Your task to perform on an android device: Search for pizza restaurants on Maps Image 0: 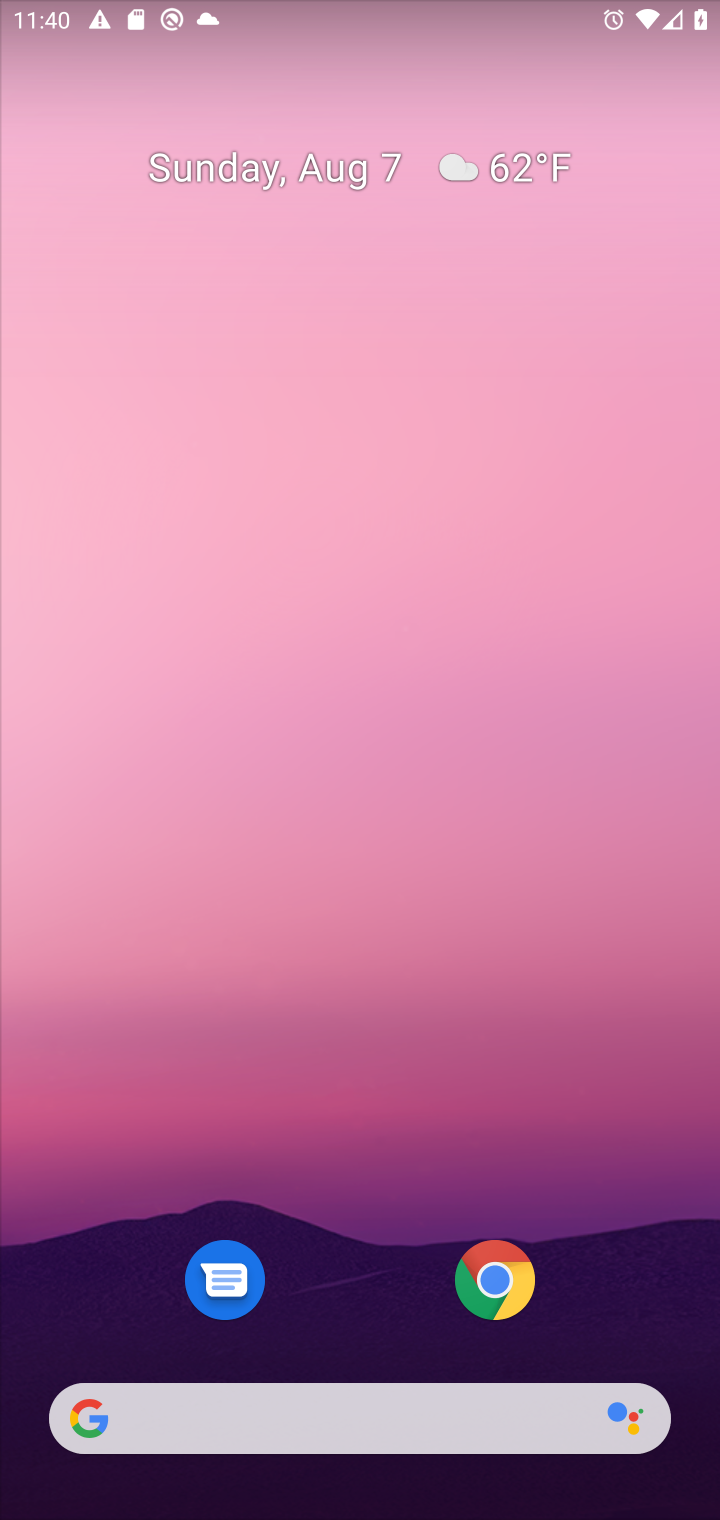
Step 0: press home button
Your task to perform on an android device: Search for pizza restaurants on Maps Image 1: 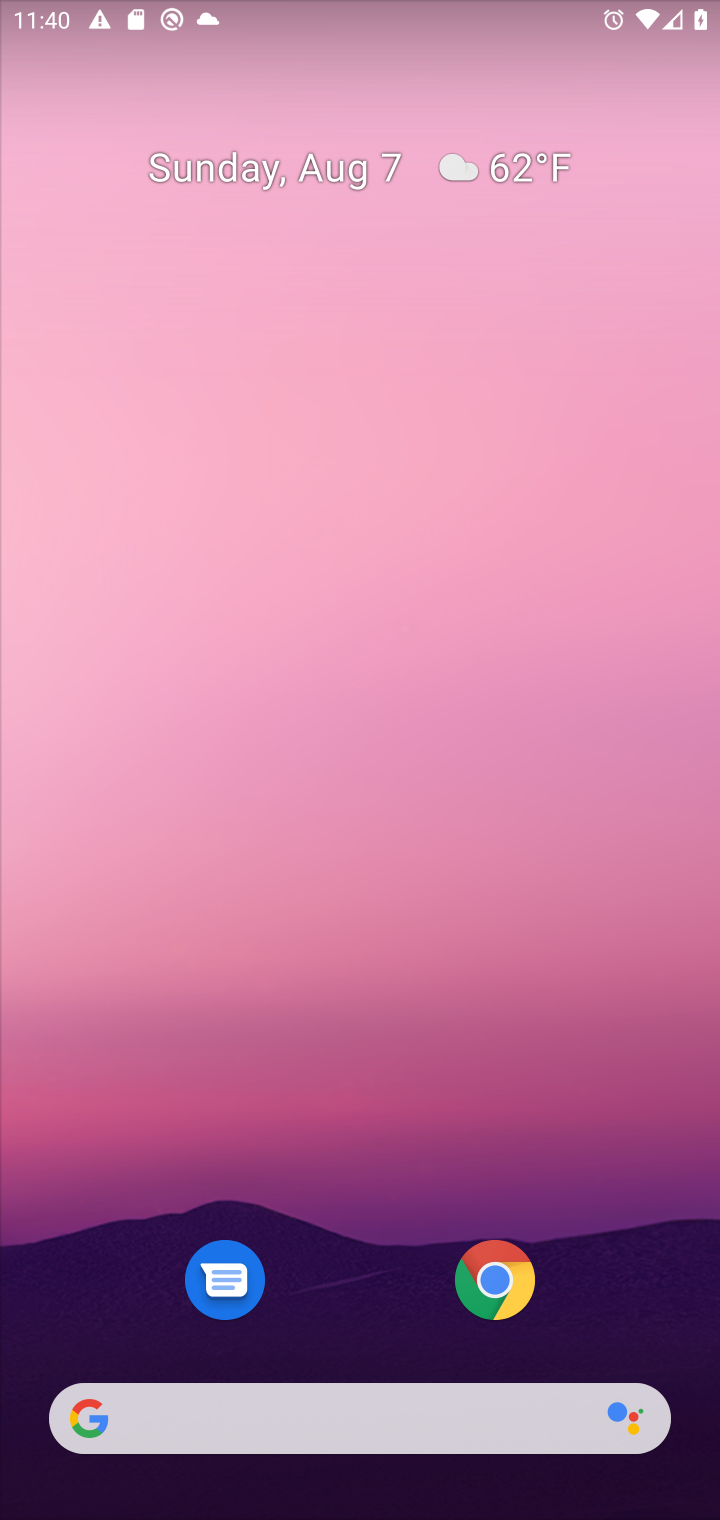
Step 1: press home button
Your task to perform on an android device: Search for pizza restaurants on Maps Image 2: 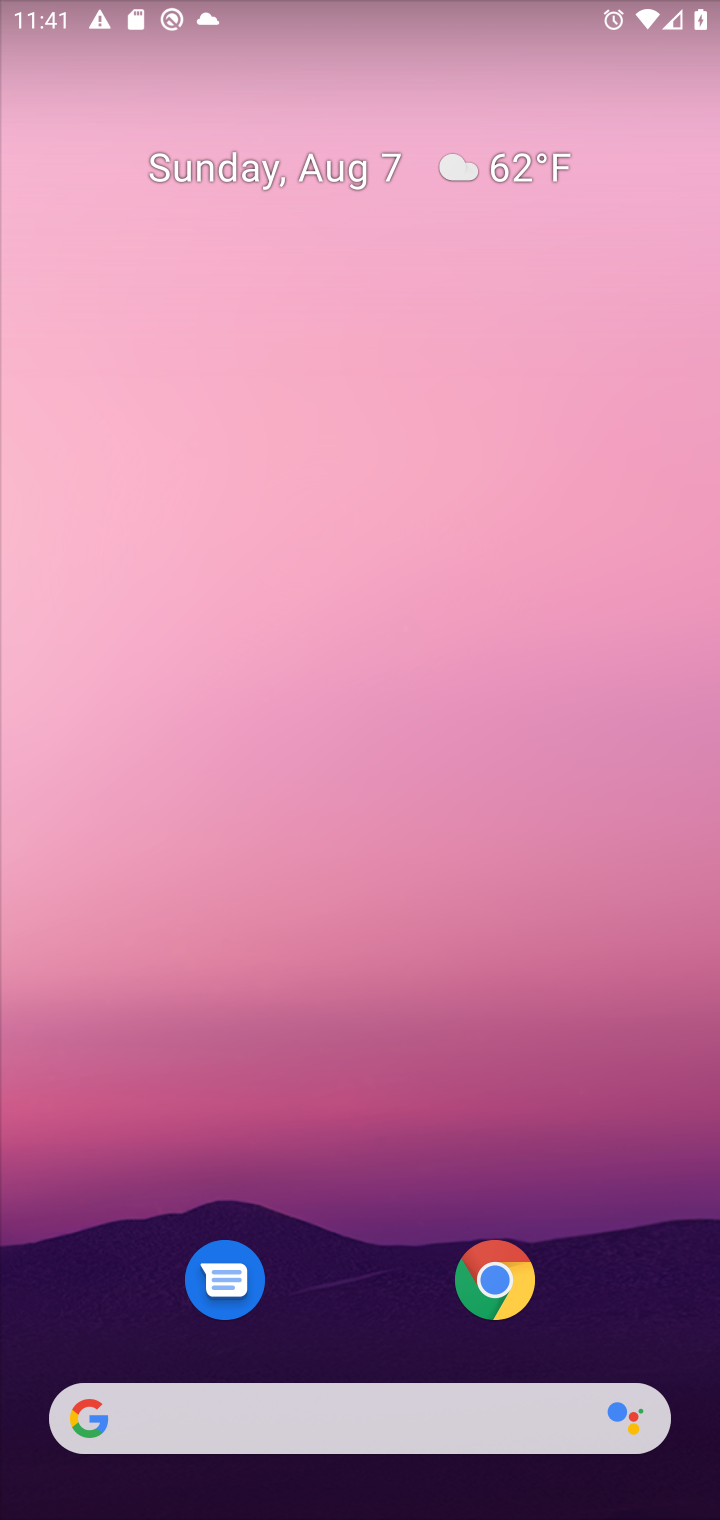
Step 2: drag from (359, 1237) to (359, 173)
Your task to perform on an android device: Search for pizza restaurants on Maps Image 3: 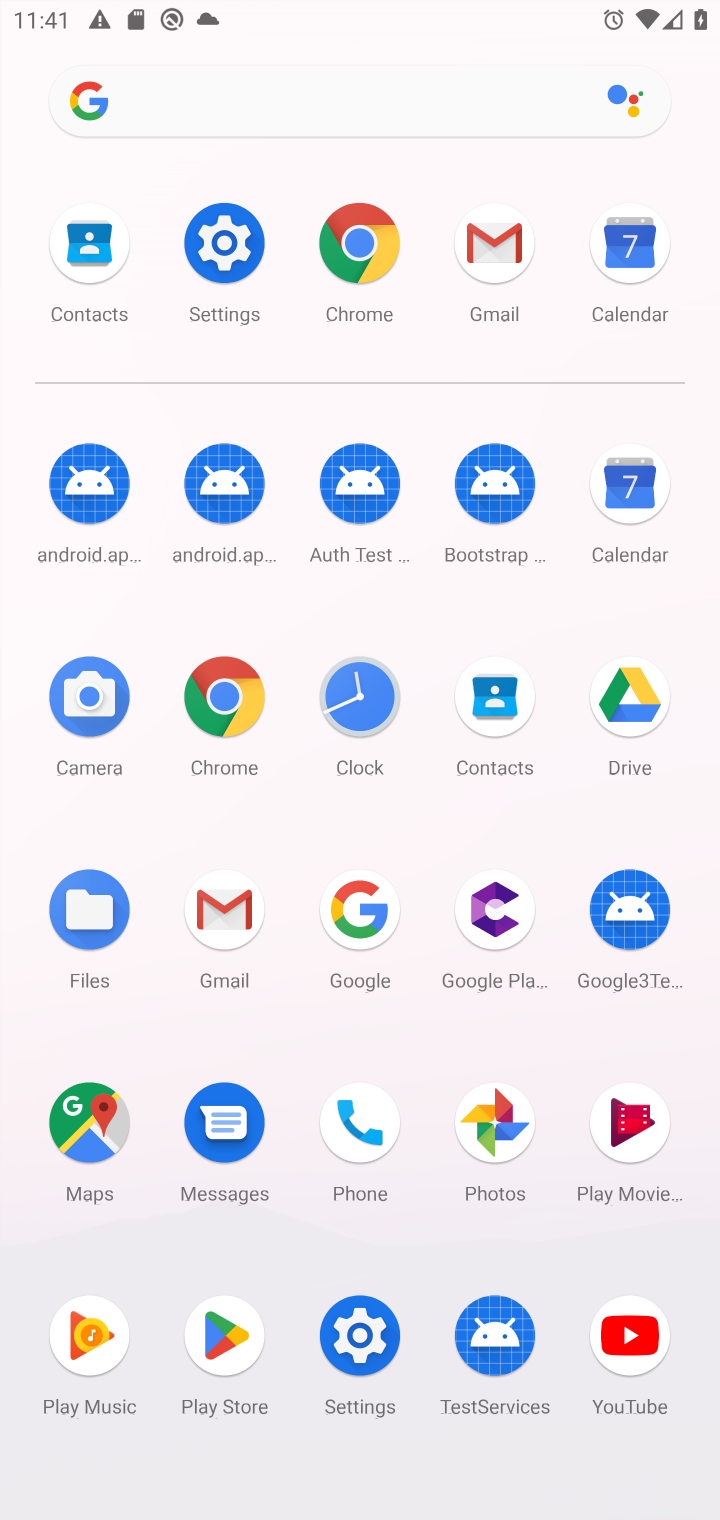
Step 3: click (77, 1119)
Your task to perform on an android device: Search for pizza restaurants on Maps Image 4: 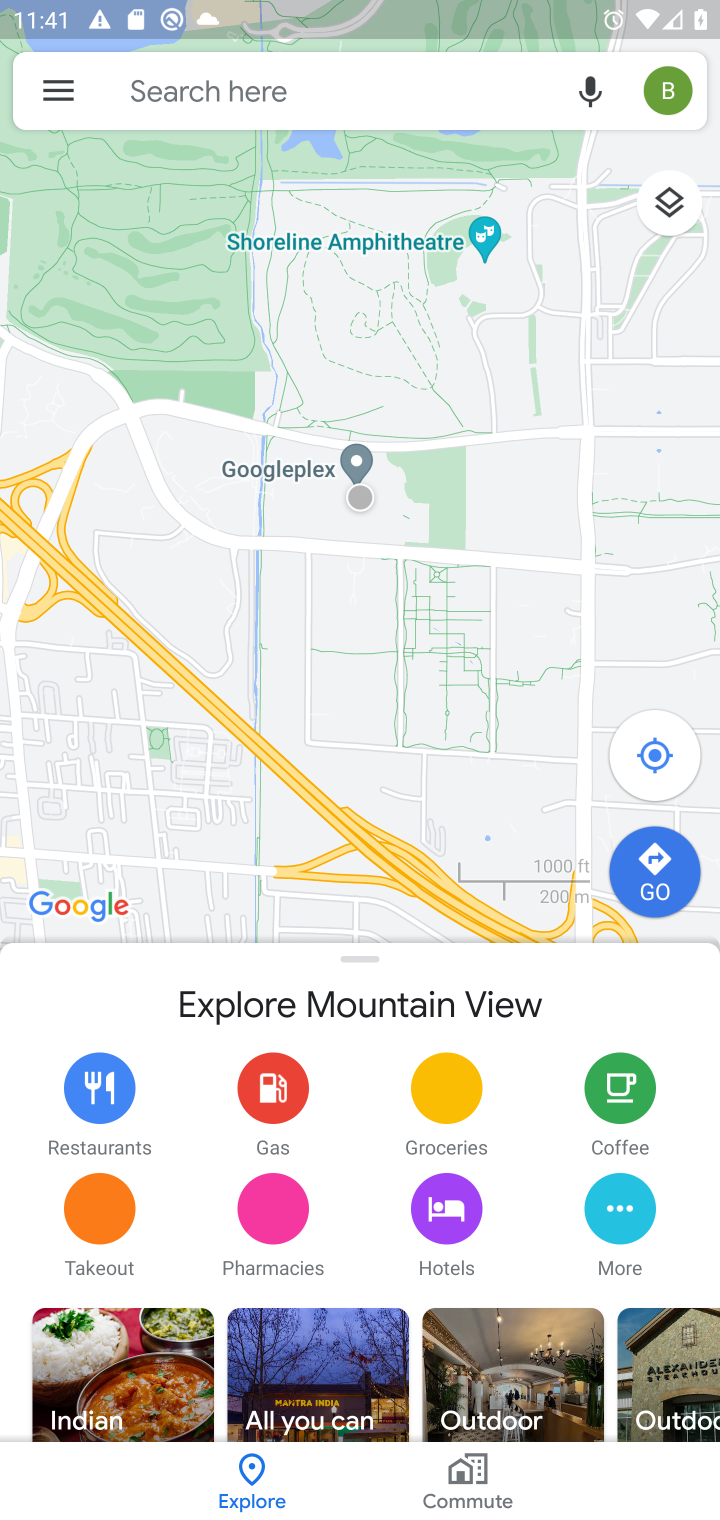
Step 4: click (270, 108)
Your task to perform on an android device: Search for pizza restaurants on Maps Image 5: 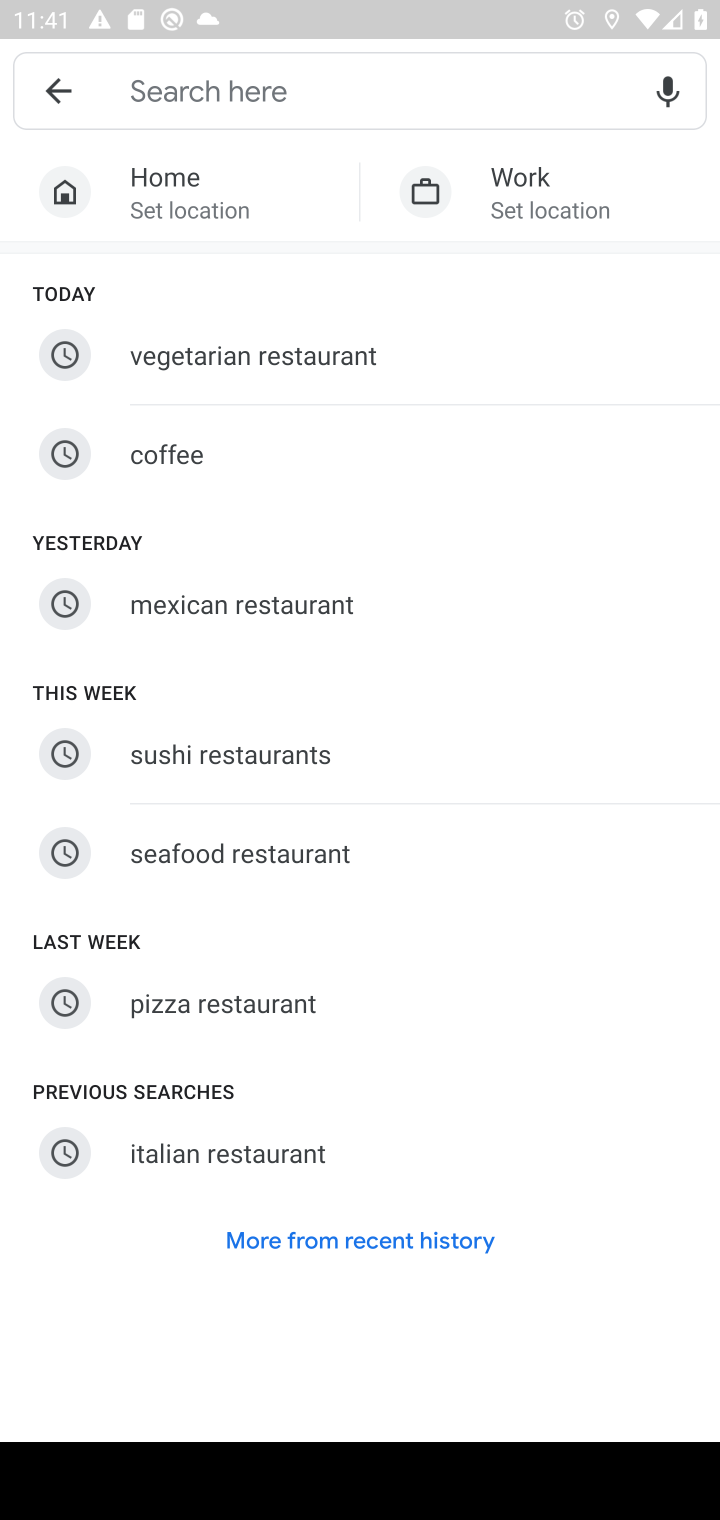
Step 5: type "Pizza restaurants"
Your task to perform on an android device: Search for pizza restaurants on Maps Image 6: 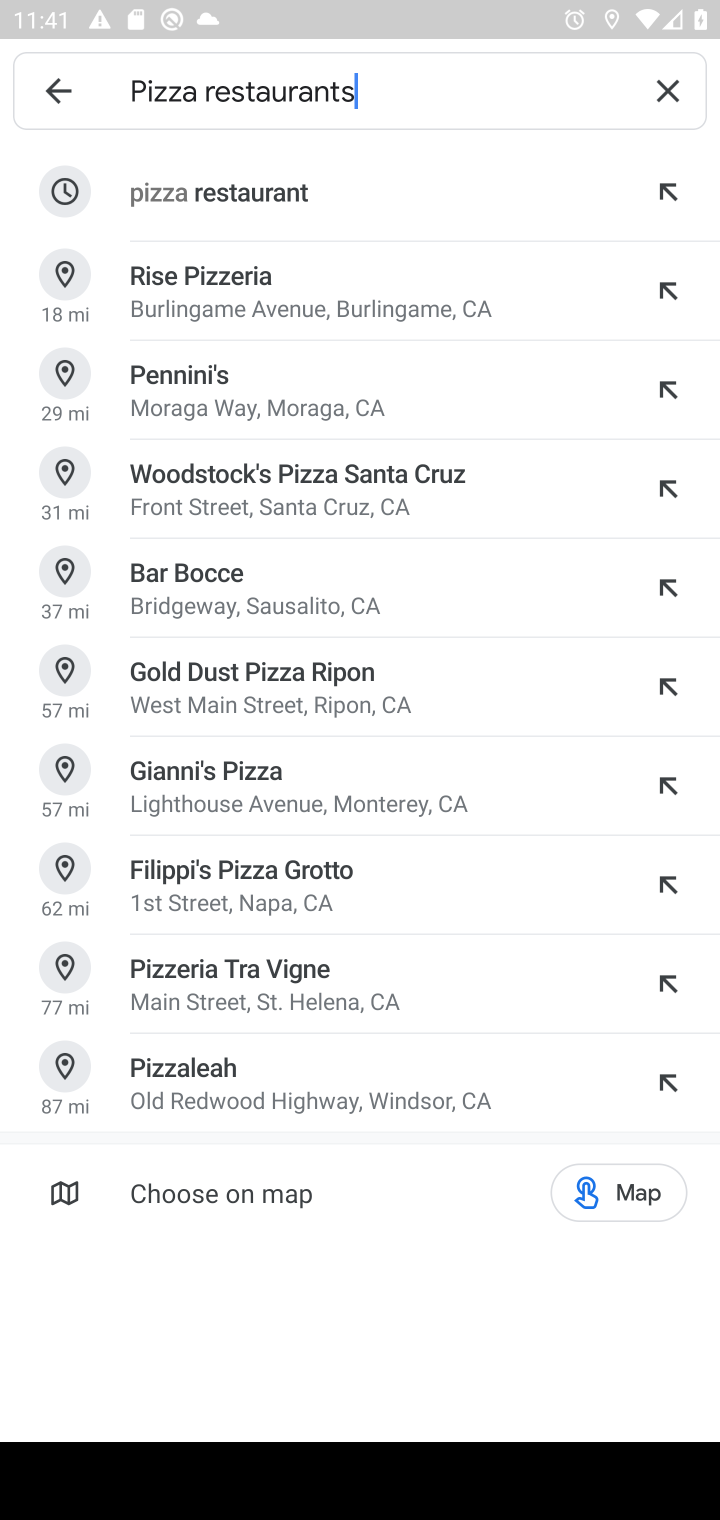
Step 6: click (212, 198)
Your task to perform on an android device: Search for pizza restaurants on Maps Image 7: 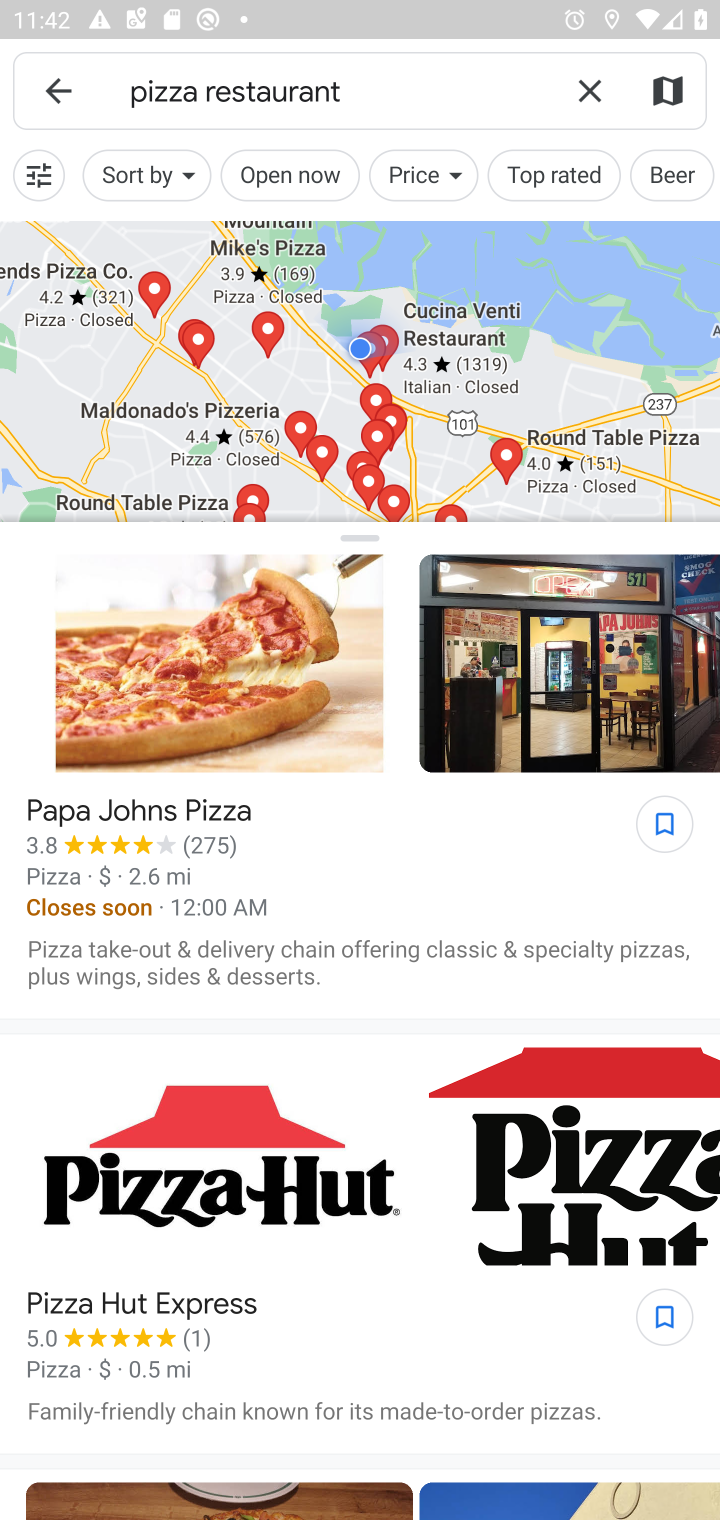
Step 7: task complete